Your task to perform on an android device: Search for "logitech g pro" on newegg.com, select the first entry, and add it to the cart. Image 0: 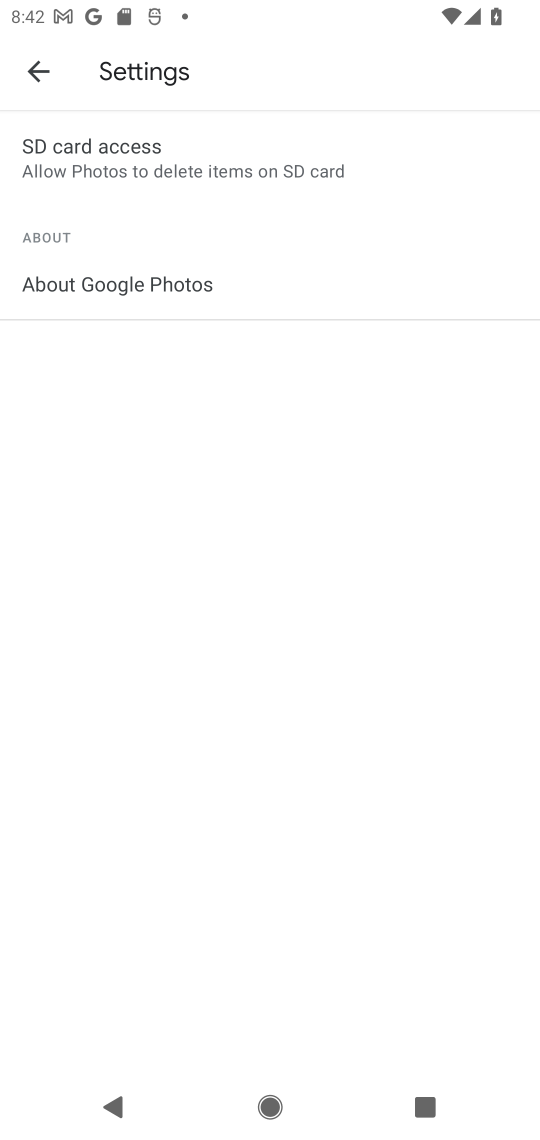
Step 0: press home button
Your task to perform on an android device: Search for "logitech g pro" on newegg.com, select the first entry, and add it to the cart. Image 1: 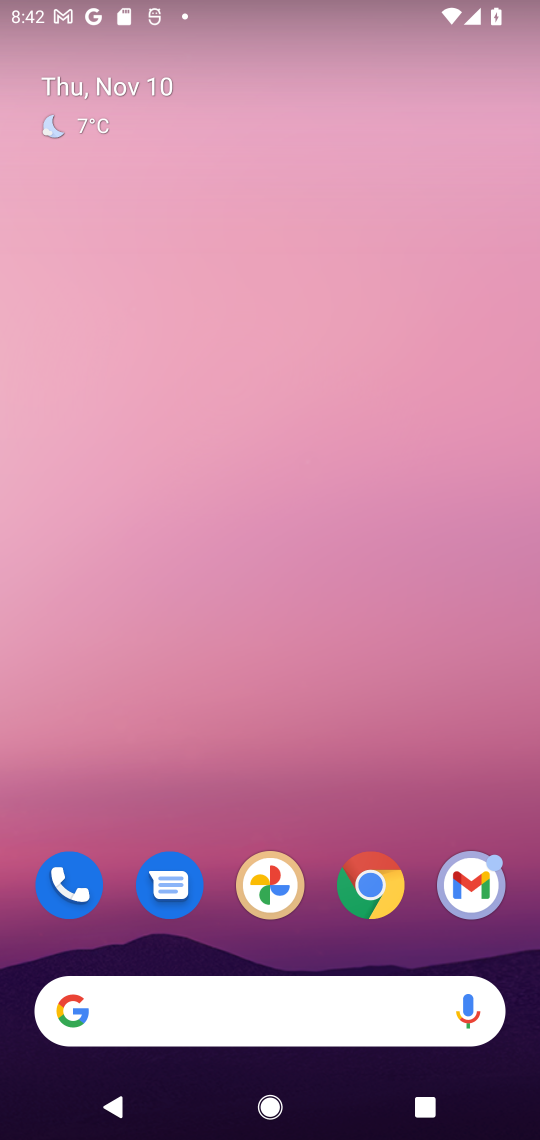
Step 1: click (382, 886)
Your task to perform on an android device: Search for "logitech g pro" on newegg.com, select the first entry, and add it to the cart. Image 2: 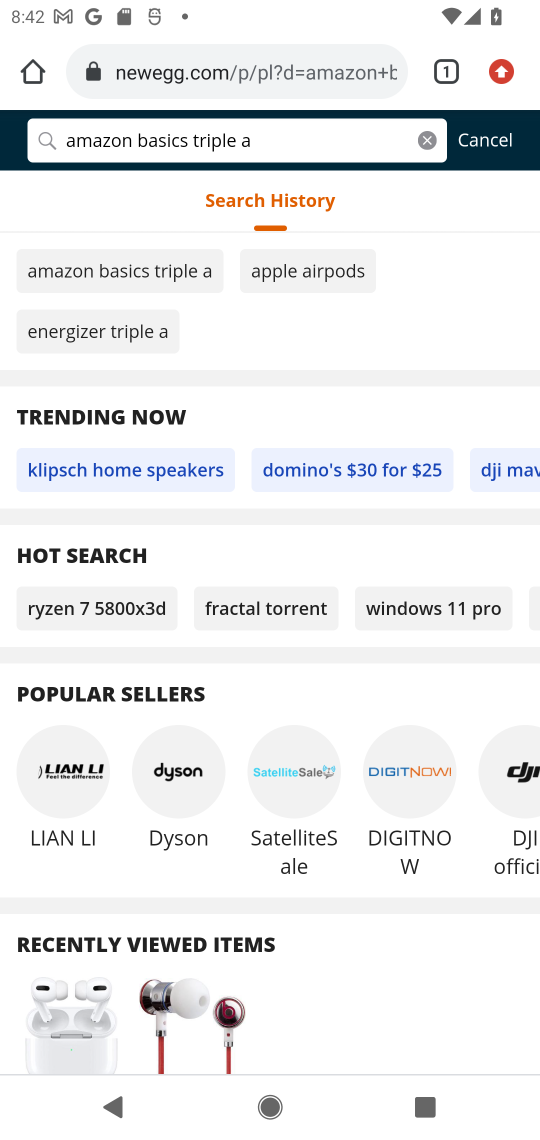
Step 2: click (424, 139)
Your task to perform on an android device: Search for "logitech g pro" on newegg.com, select the first entry, and add it to the cart. Image 3: 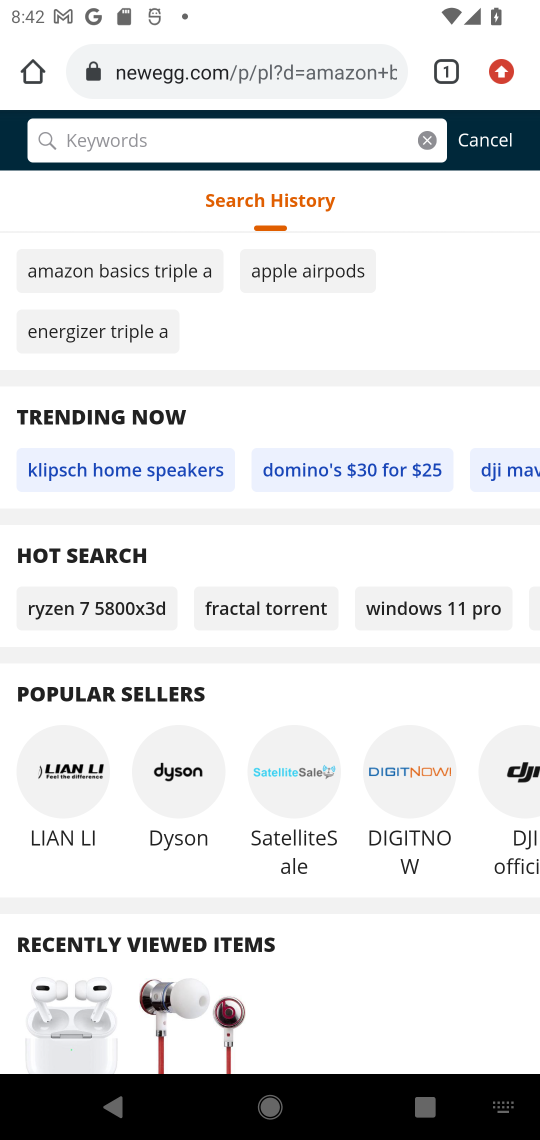
Step 3: press enter
Your task to perform on an android device: Search for "logitech g pro" on newegg.com, select the first entry, and add it to the cart. Image 4: 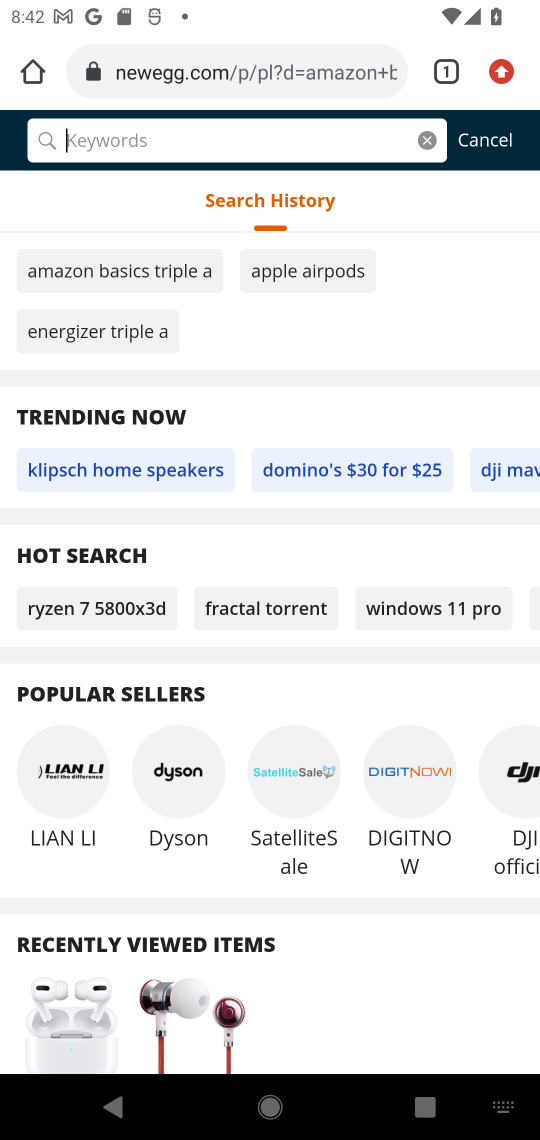
Step 4: type "logitech g pro"
Your task to perform on an android device: Search for "logitech g pro" on newegg.com, select the first entry, and add it to the cart. Image 5: 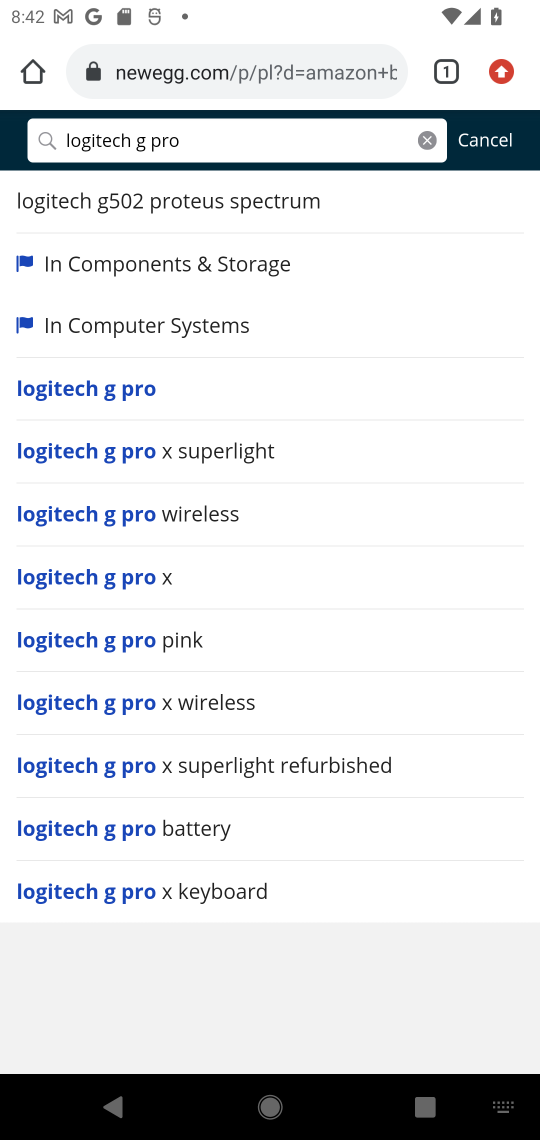
Step 5: click (129, 389)
Your task to perform on an android device: Search for "logitech g pro" on newegg.com, select the first entry, and add it to the cart. Image 6: 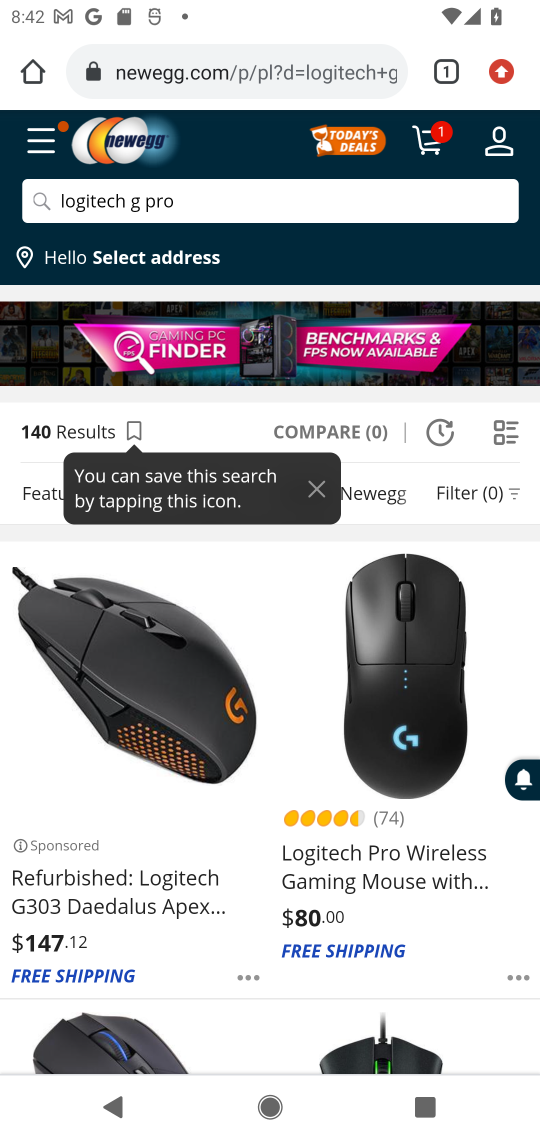
Step 6: drag from (436, 839) to (451, 337)
Your task to perform on an android device: Search for "logitech g pro" on newegg.com, select the first entry, and add it to the cart. Image 7: 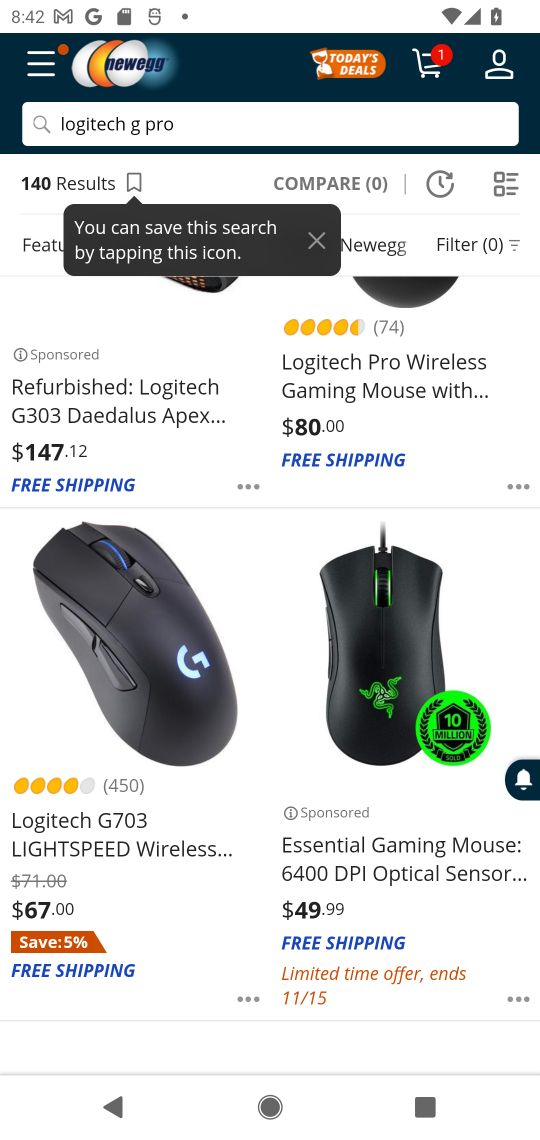
Step 7: drag from (425, 863) to (521, 283)
Your task to perform on an android device: Search for "logitech g pro" on newegg.com, select the first entry, and add it to the cart. Image 8: 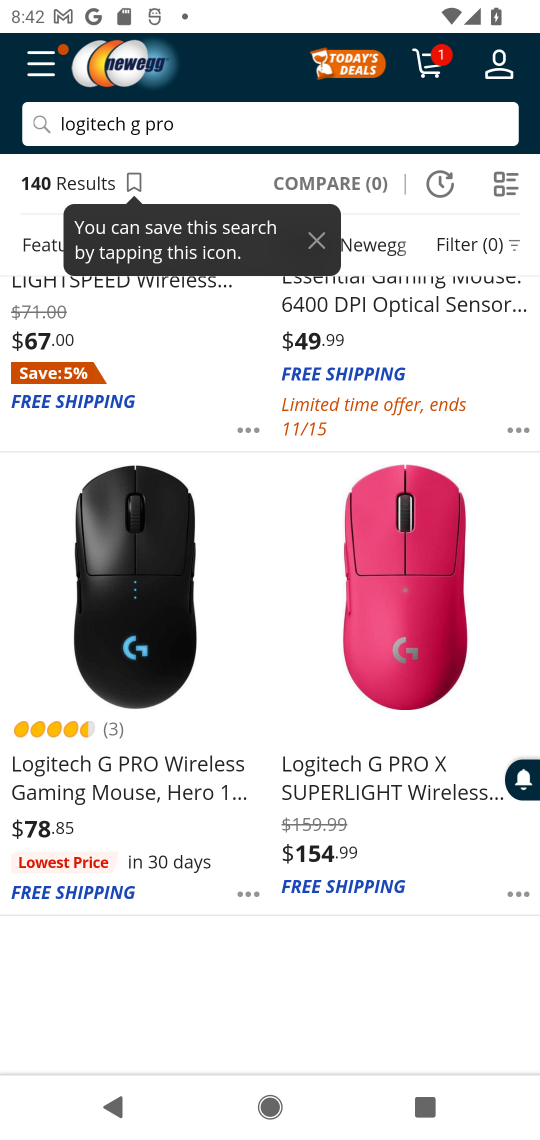
Step 8: click (124, 590)
Your task to perform on an android device: Search for "logitech g pro" on newegg.com, select the first entry, and add it to the cart. Image 9: 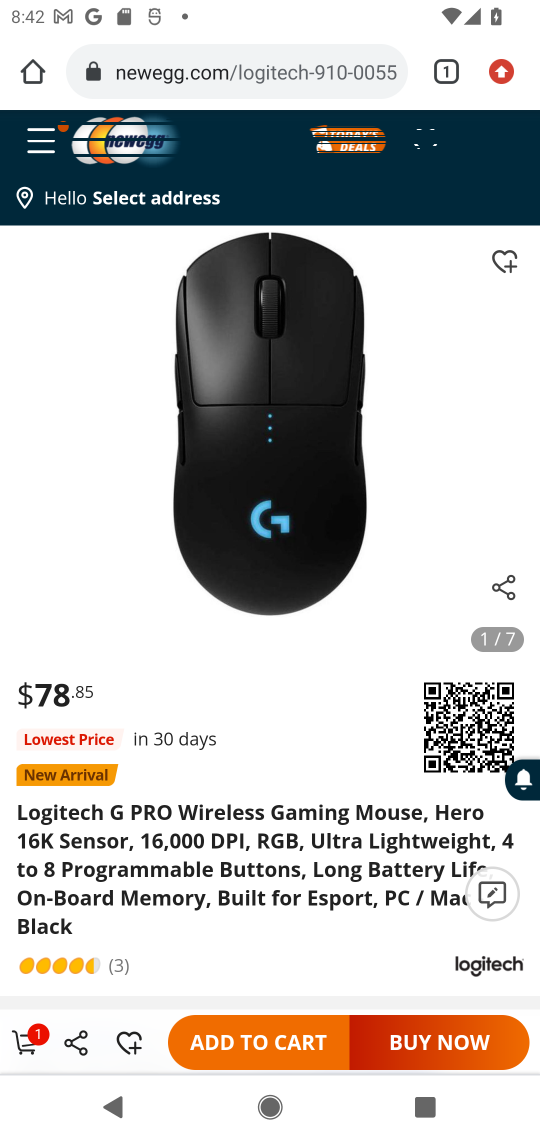
Step 9: drag from (367, 755) to (498, 241)
Your task to perform on an android device: Search for "logitech g pro" on newegg.com, select the first entry, and add it to the cart. Image 10: 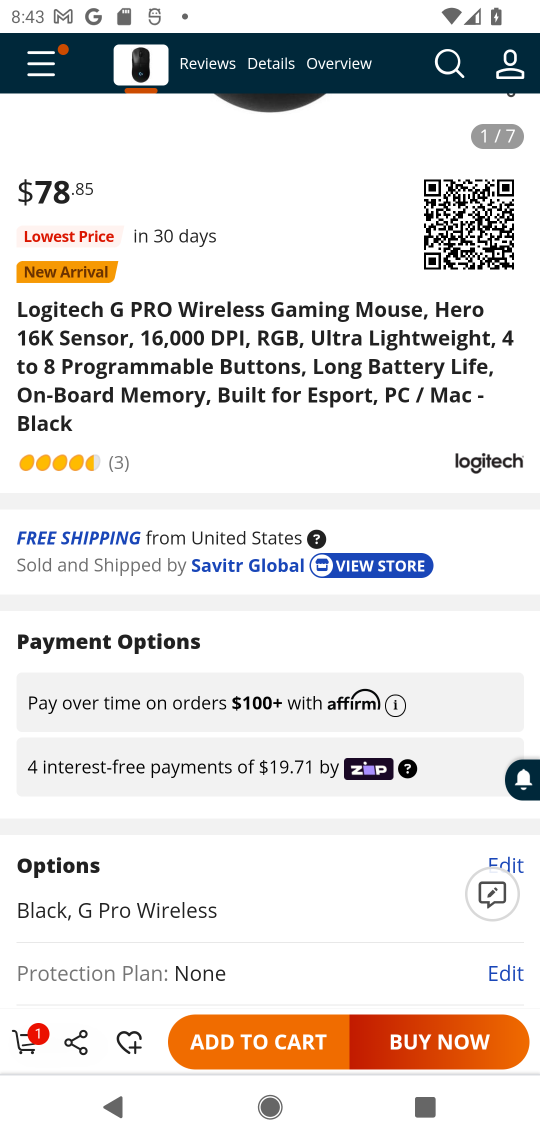
Step 10: click (259, 1035)
Your task to perform on an android device: Search for "logitech g pro" on newegg.com, select the first entry, and add it to the cart. Image 11: 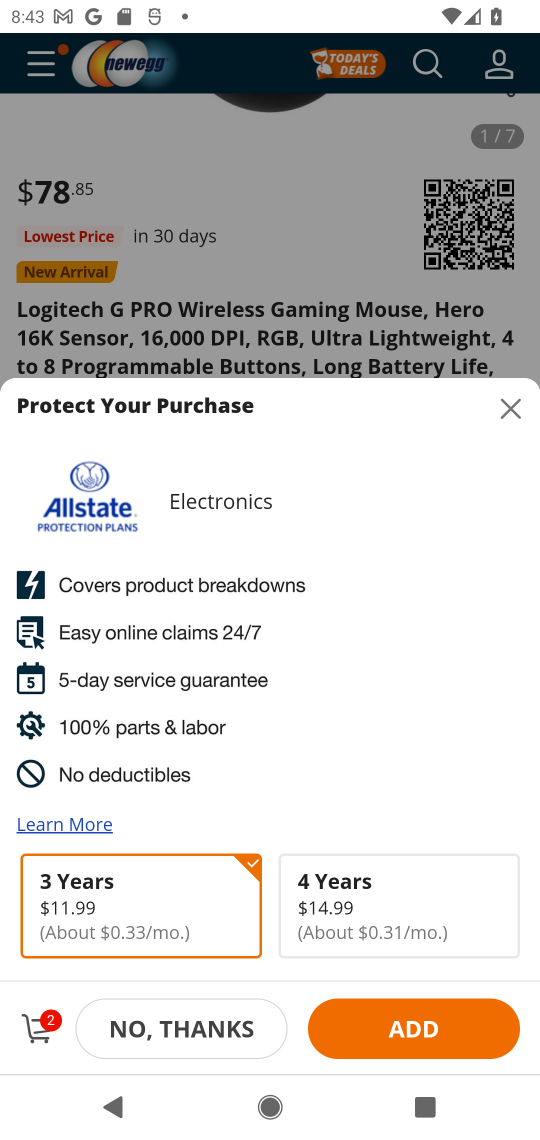
Step 11: click (507, 401)
Your task to perform on an android device: Search for "logitech g pro" on newegg.com, select the first entry, and add it to the cart. Image 12: 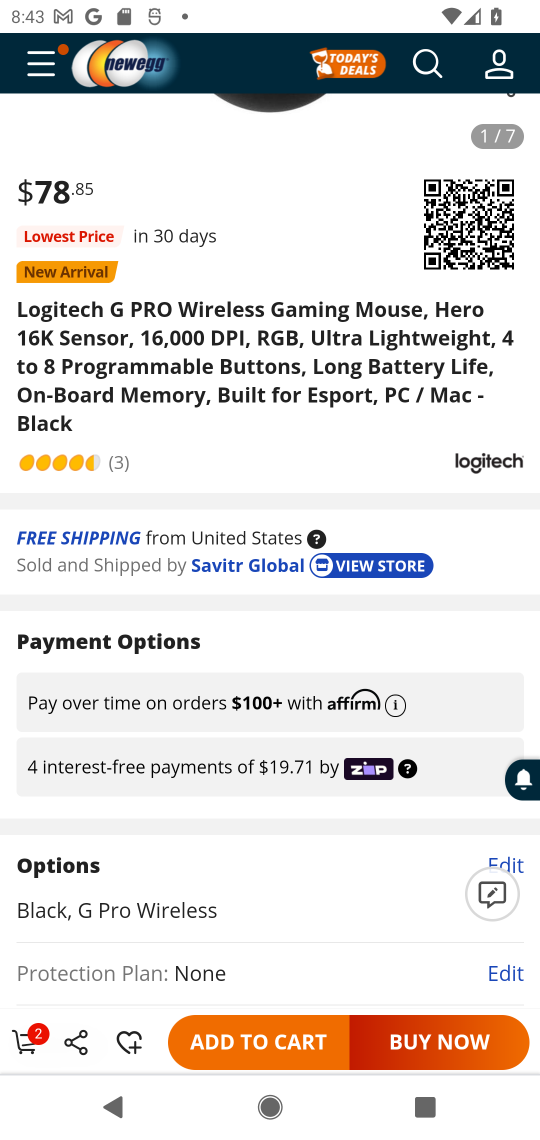
Step 12: task complete